Your task to perform on an android device: Open Yahoo.com Image 0: 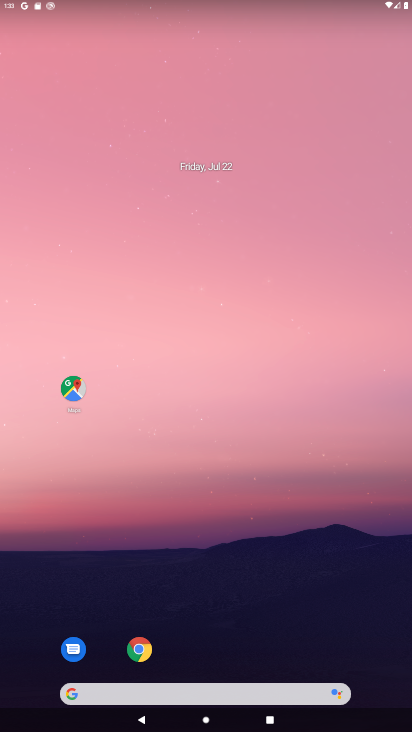
Step 0: click (138, 643)
Your task to perform on an android device: Open Yahoo.com Image 1: 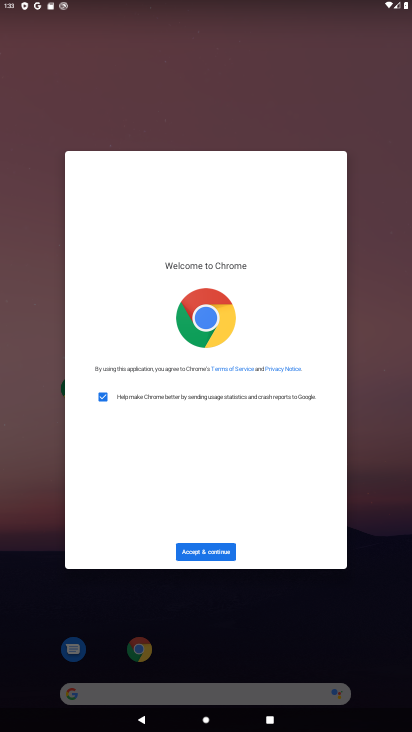
Step 1: click (197, 556)
Your task to perform on an android device: Open Yahoo.com Image 2: 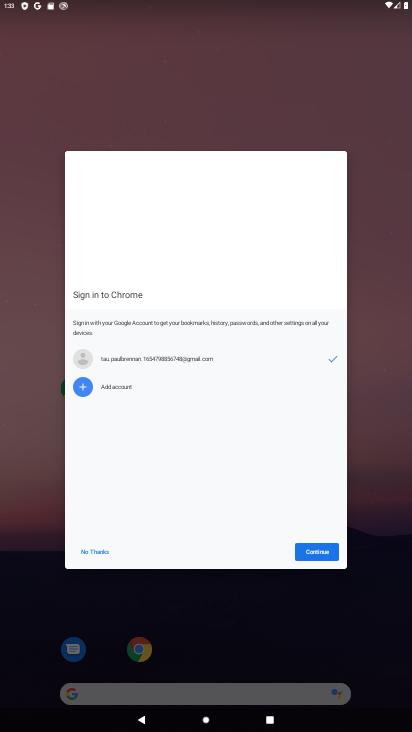
Step 2: click (322, 556)
Your task to perform on an android device: Open Yahoo.com Image 3: 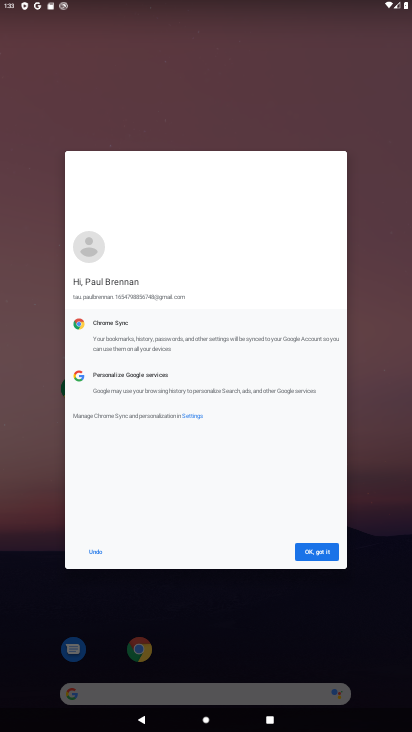
Step 3: click (322, 556)
Your task to perform on an android device: Open Yahoo.com Image 4: 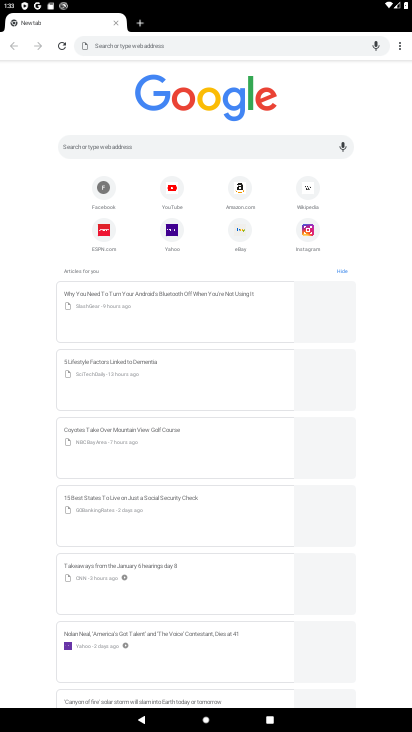
Step 4: click (175, 229)
Your task to perform on an android device: Open Yahoo.com Image 5: 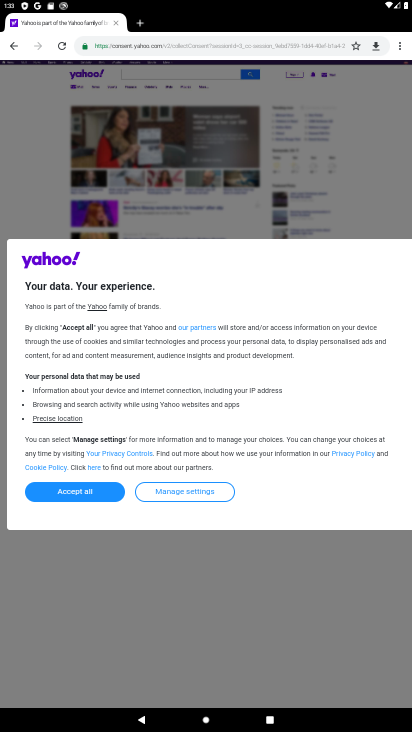
Step 5: task complete